Your task to perform on an android device: Open Android settings Image 0: 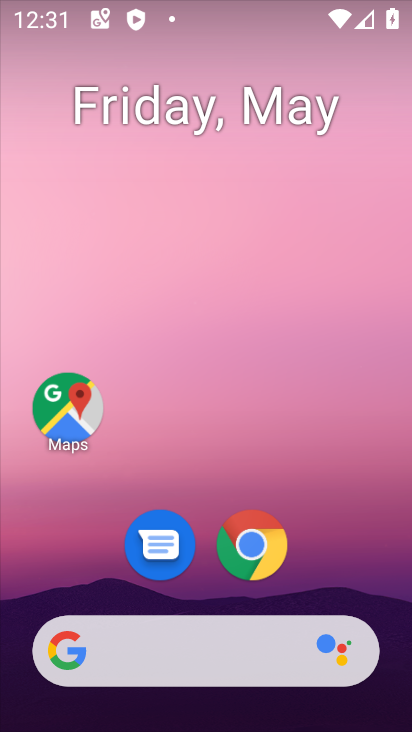
Step 0: drag from (327, 581) to (320, 245)
Your task to perform on an android device: Open Android settings Image 1: 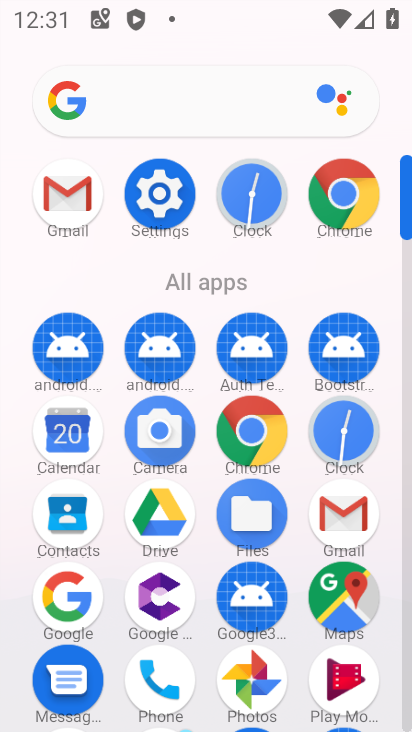
Step 1: click (163, 204)
Your task to perform on an android device: Open Android settings Image 2: 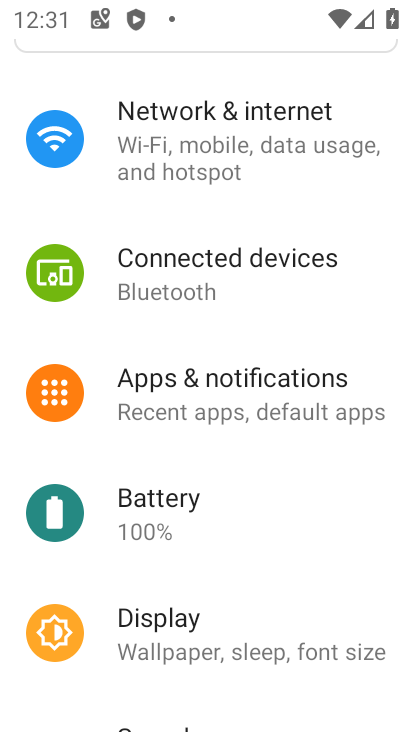
Step 2: task complete